Your task to perform on an android device: check storage Image 0: 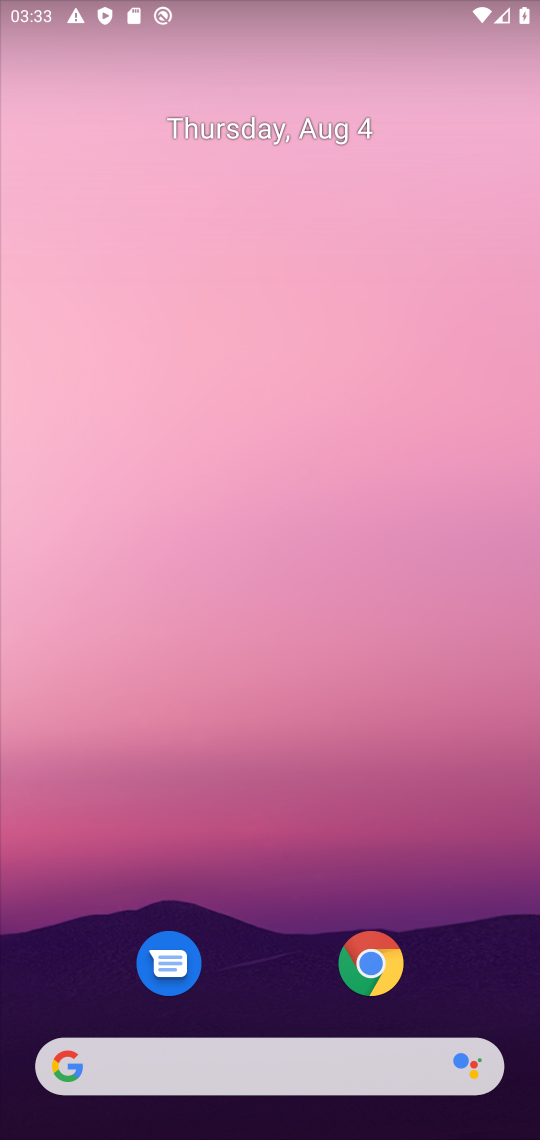
Step 0: drag from (267, 907) to (283, 45)
Your task to perform on an android device: check storage Image 1: 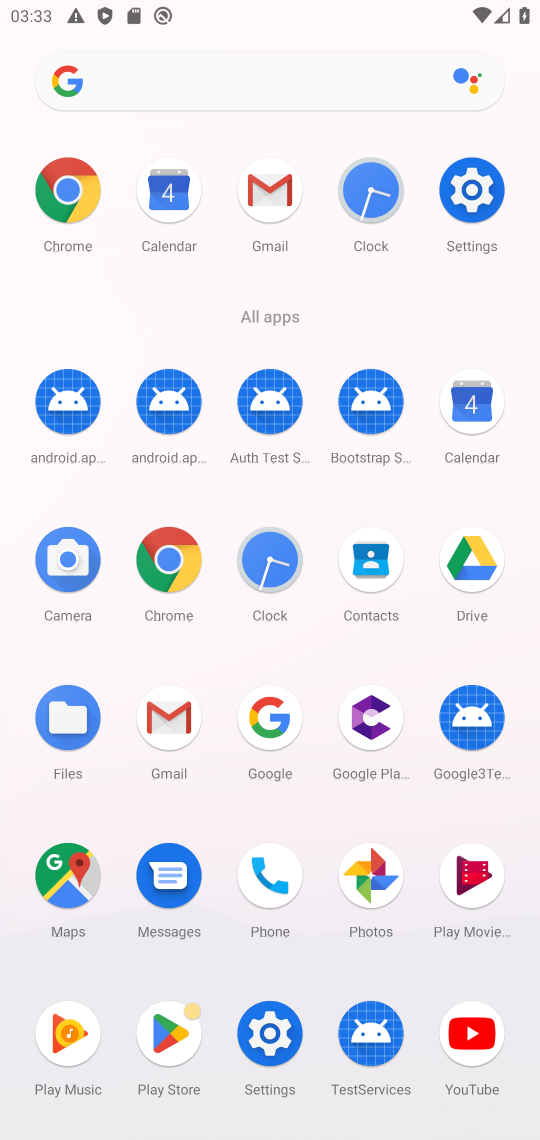
Step 1: click (471, 202)
Your task to perform on an android device: check storage Image 2: 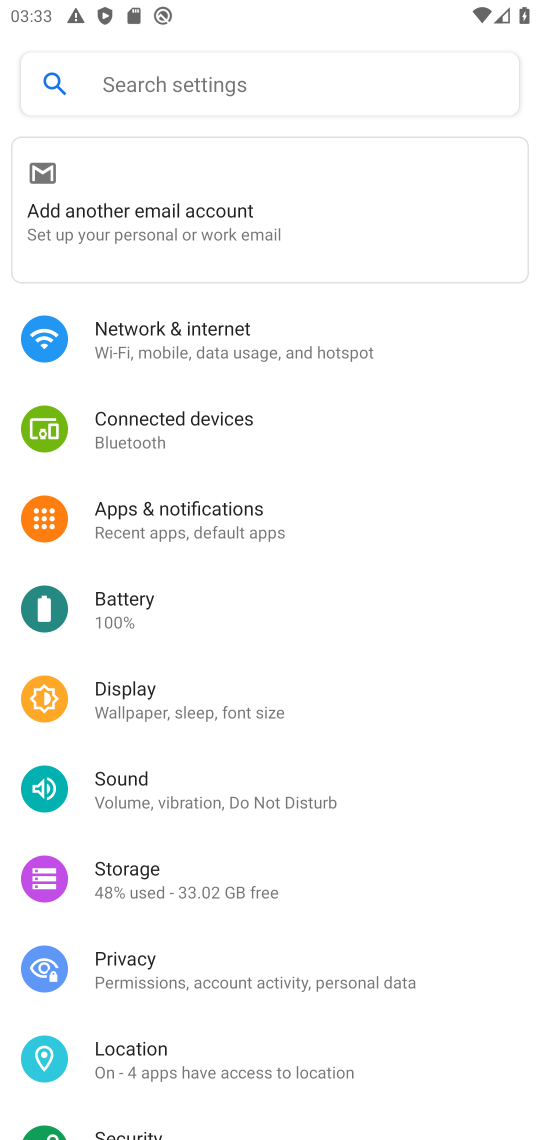
Step 2: click (139, 890)
Your task to perform on an android device: check storage Image 3: 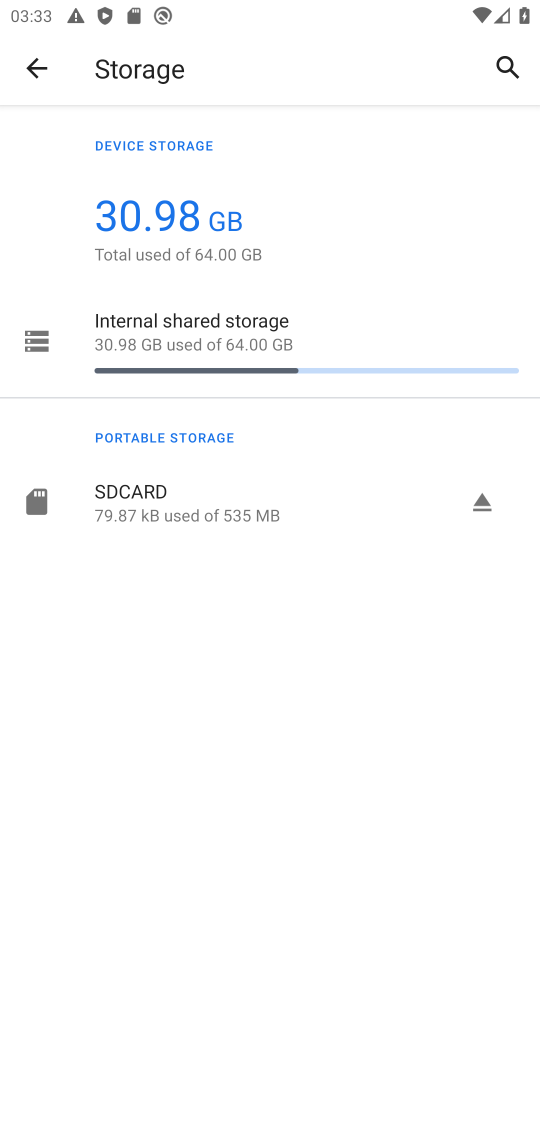
Step 3: task complete